Your task to perform on an android device: turn off wifi Image 0: 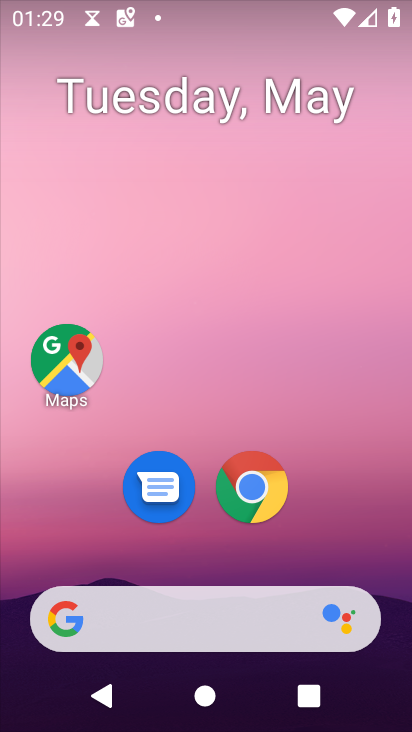
Step 0: drag from (227, 334) to (320, 0)
Your task to perform on an android device: turn off wifi Image 1: 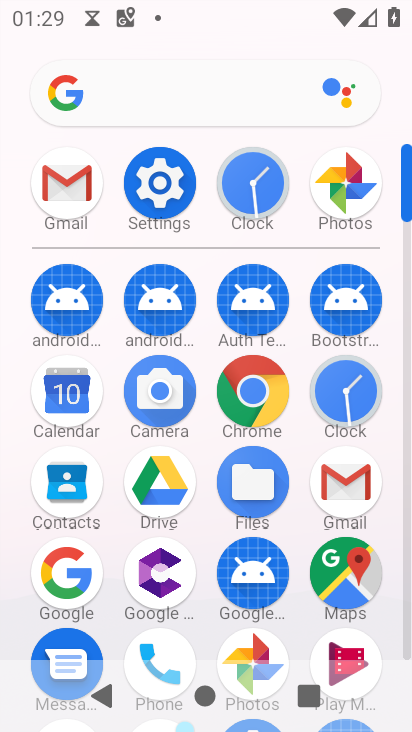
Step 1: click (141, 176)
Your task to perform on an android device: turn off wifi Image 2: 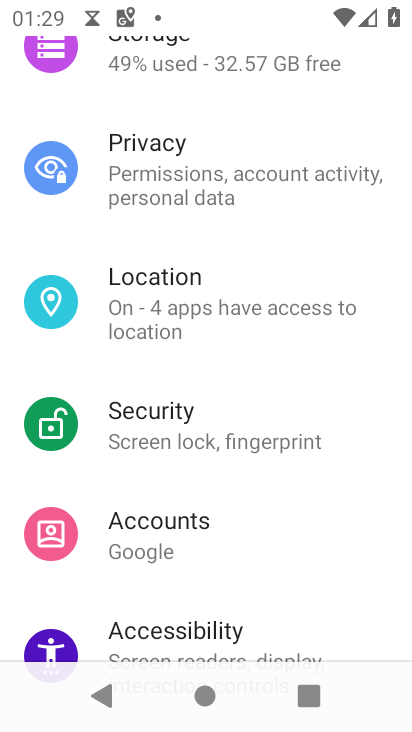
Step 2: drag from (144, 127) to (253, 491)
Your task to perform on an android device: turn off wifi Image 3: 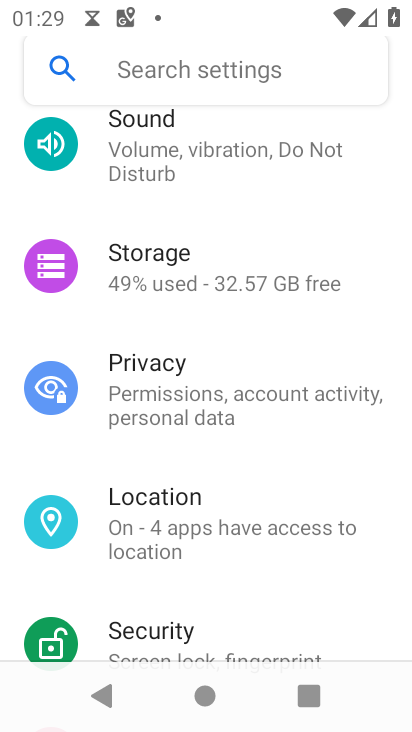
Step 3: drag from (156, 260) to (214, 513)
Your task to perform on an android device: turn off wifi Image 4: 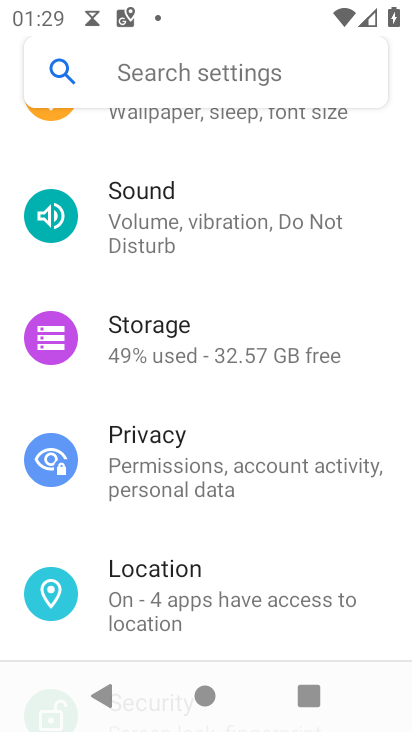
Step 4: drag from (211, 274) to (251, 506)
Your task to perform on an android device: turn off wifi Image 5: 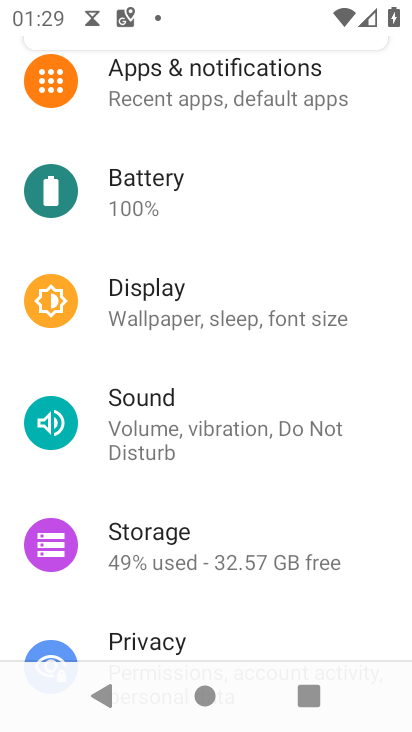
Step 5: drag from (235, 328) to (275, 532)
Your task to perform on an android device: turn off wifi Image 6: 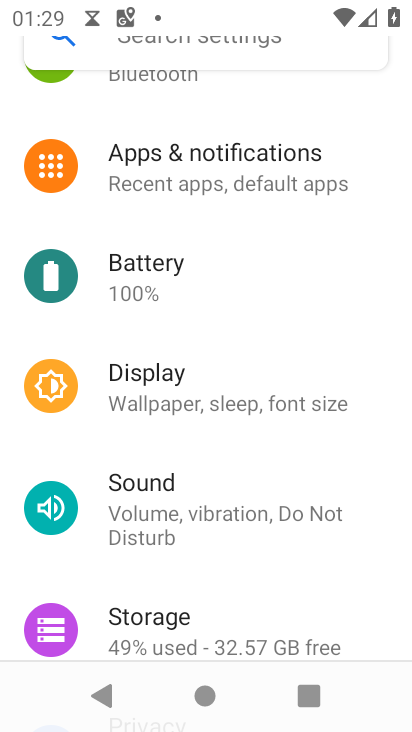
Step 6: drag from (225, 332) to (206, 479)
Your task to perform on an android device: turn off wifi Image 7: 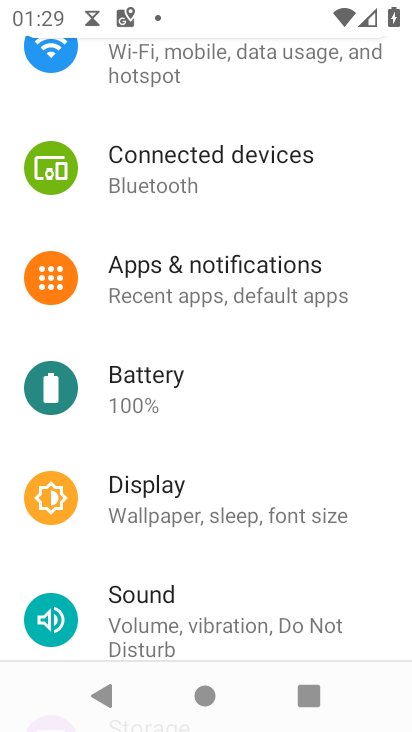
Step 7: drag from (177, 251) to (209, 518)
Your task to perform on an android device: turn off wifi Image 8: 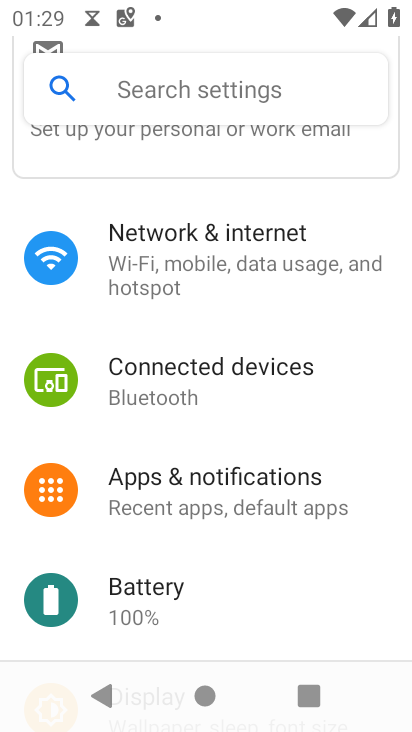
Step 8: click (181, 259)
Your task to perform on an android device: turn off wifi Image 9: 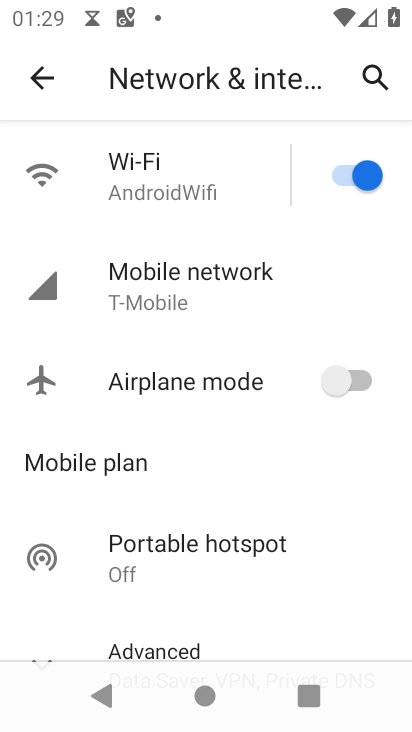
Step 9: click (357, 195)
Your task to perform on an android device: turn off wifi Image 10: 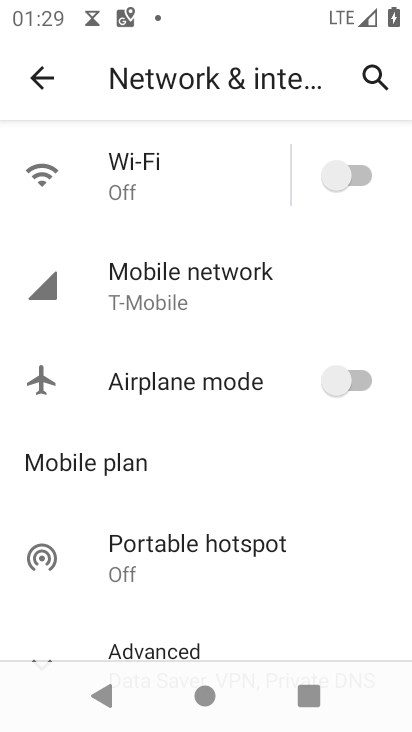
Step 10: task complete